Your task to perform on an android device: turn off wifi Image 0: 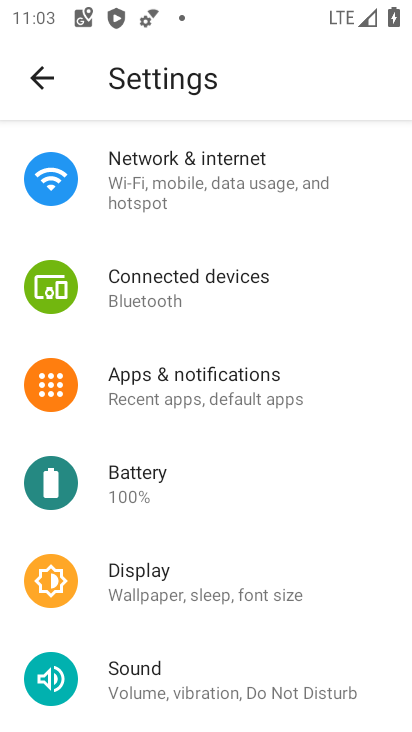
Step 0: press back button
Your task to perform on an android device: turn off wifi Image 1: 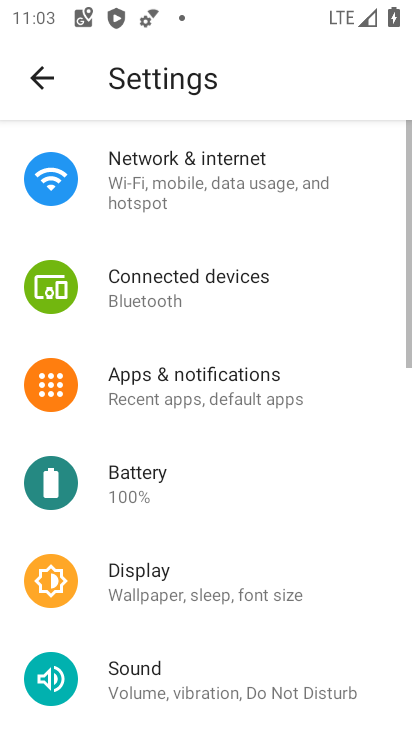
Step 1: task complete